Your task to perform on an android device: allow notifications from all sites in the chrome app Image 0: 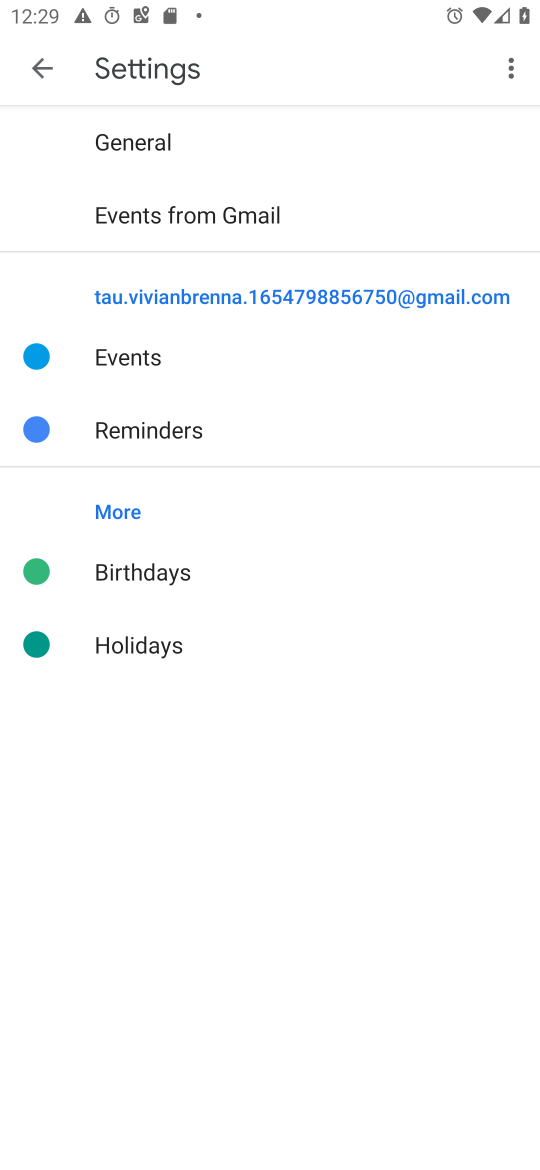
Step 0: press home button
Your task to perform on an android device: allow notifications from all sites in the chrome app Image 1: 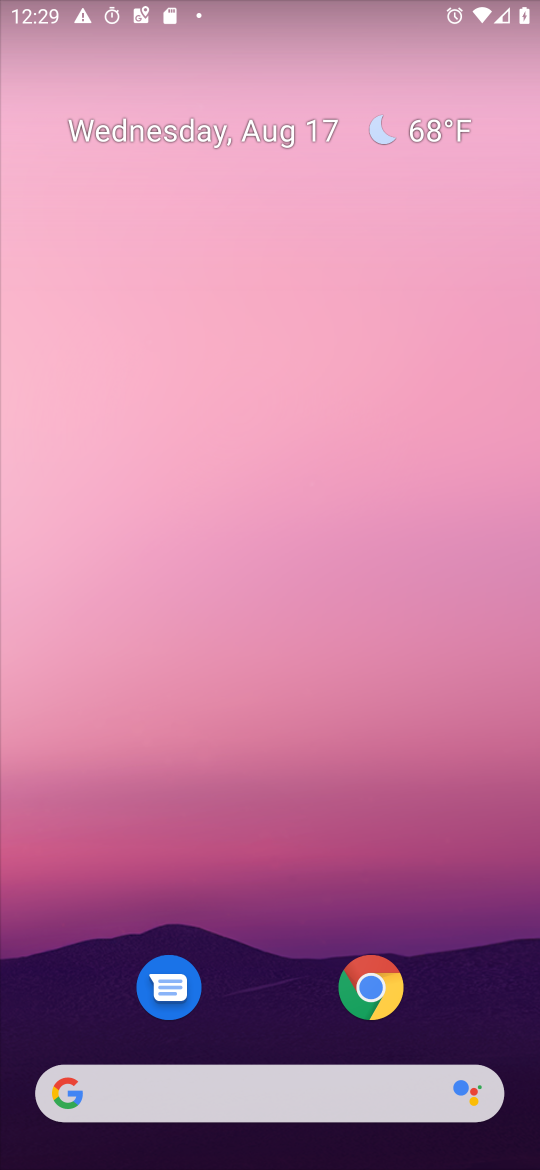
Step 1: click (340, 983)
Your task to perform on an android device: allow notifications from all sites in the chrome app Image 2: 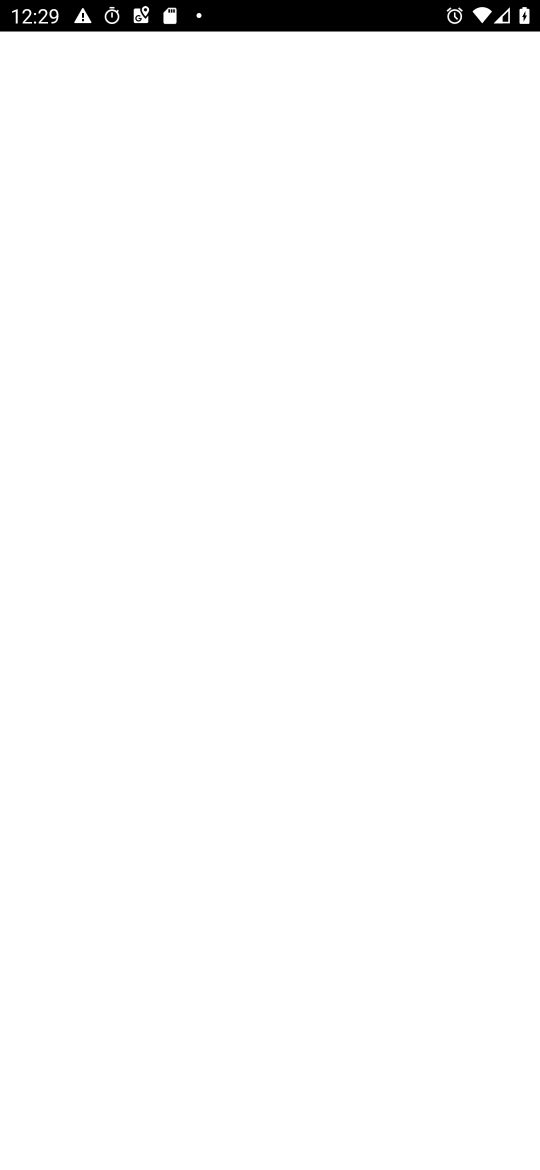
Step 2: click (361, 985)
Your task to perform on an android device: allow notifications from all sites in the chrome app Image 3: 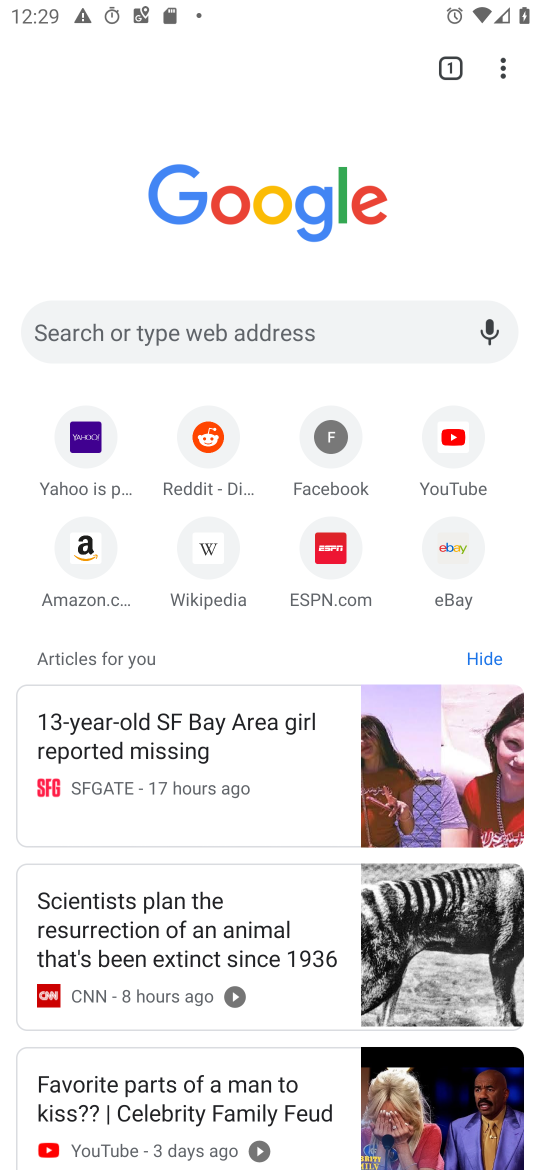
Step 3: click (517, 70)
Your task to perform on an android device: allow notifications from all sites in the chrome app Image 4: 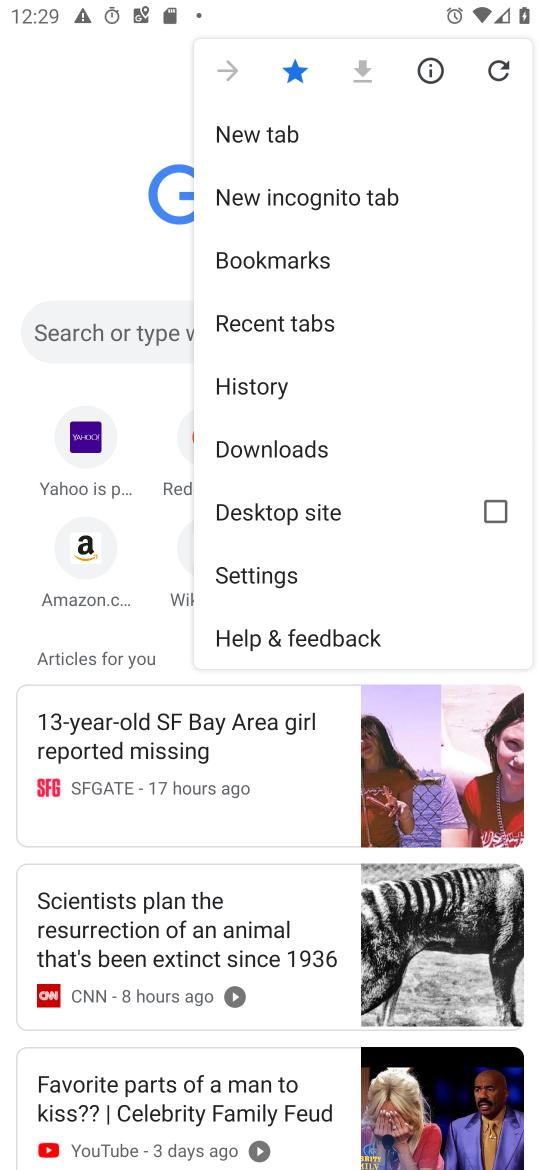
Step 4: click (256, 574)
Your task to perform on an android device: allow notifications from all sites in the chrome app Image 5: 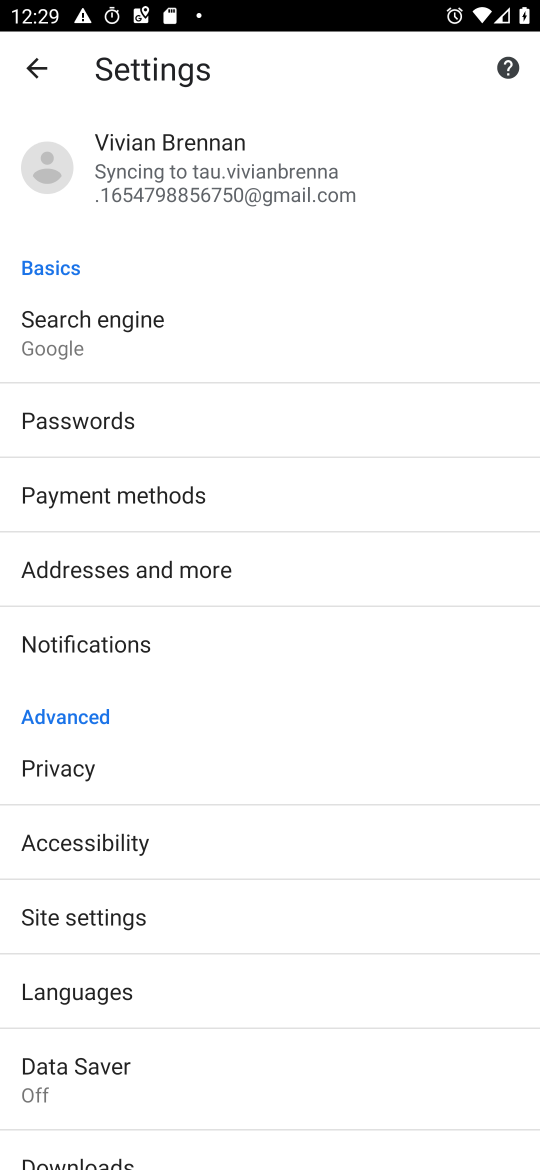
Step 5: click (38, 920)
Your task to perform on an android device: allow notifications from all sites in the chrome app Image 6: 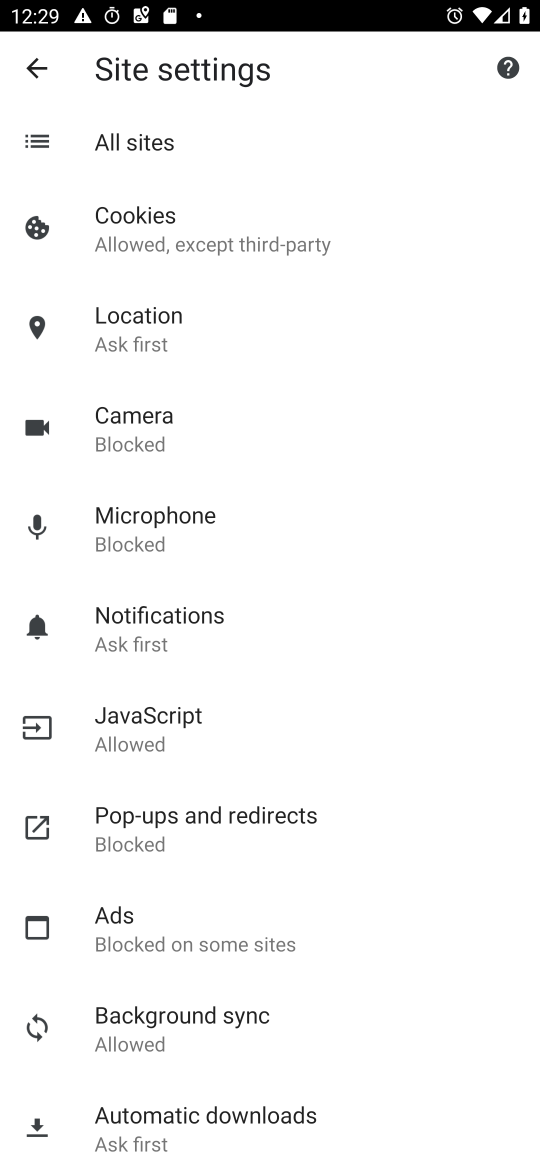
Step 6: click (216, 617)
Your task to perform on an android device: allow notifications from all sites in the chrome app Image 7: 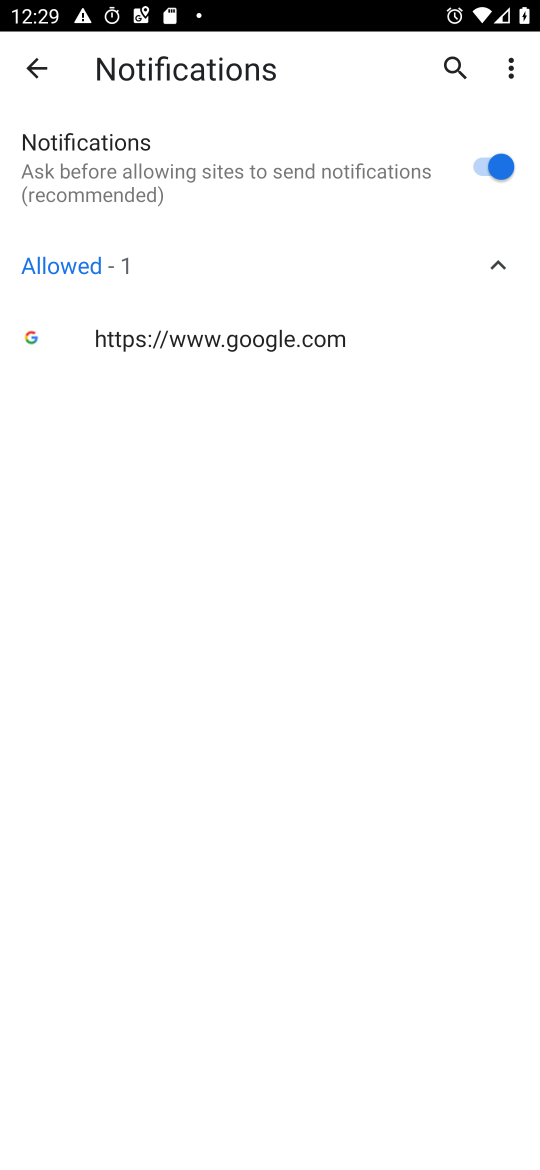
Step 7: task complete